Your task to perform on an android device: choose inbox layout in the gmail app Image 0: 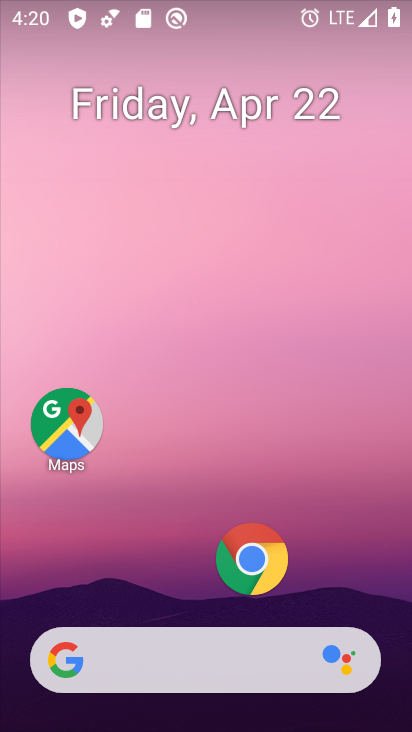
Step 0: drag from (153, 594) to (211, 120)
Your task to perform on an android device: choose inbox layout in the gmail app Image 1: 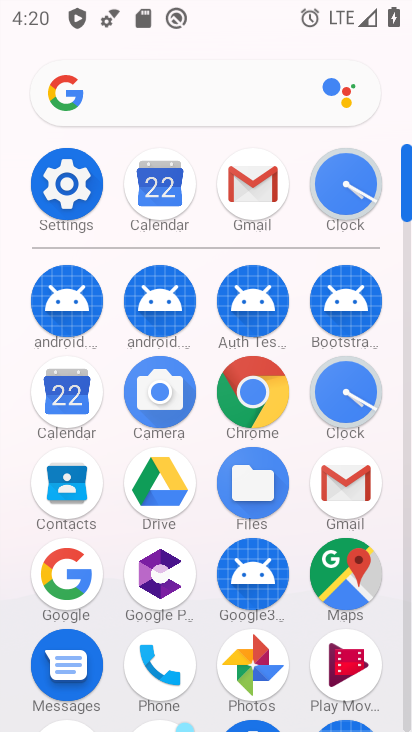
Step 1: click (346, 491)
Your task to perform on an android device: choose inbox layout in the gmail app Image 2: 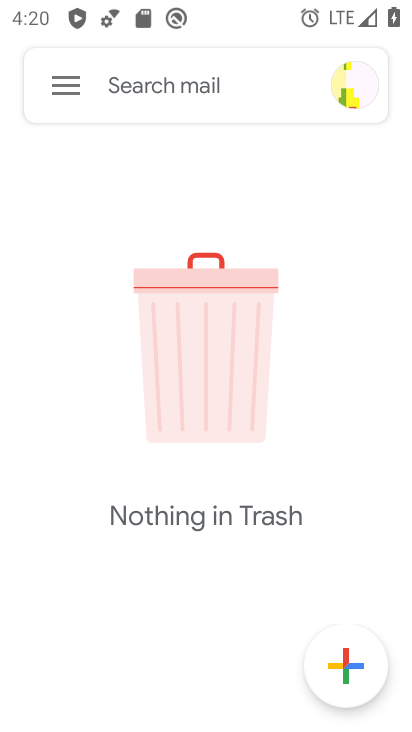
Step 2: click (64, 86)
Your task to perform on an android device: choose inbox layout in the gmail app Image 3: 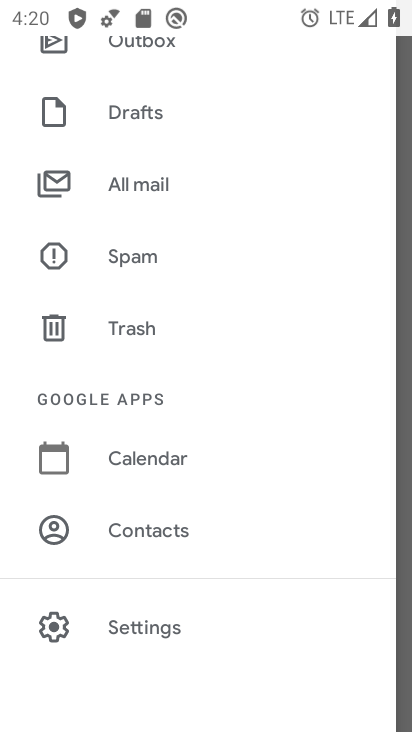
Step 3: click (122, 630)
Your task to perform on an android device: choose inbox layout in the gmail app Image 4: 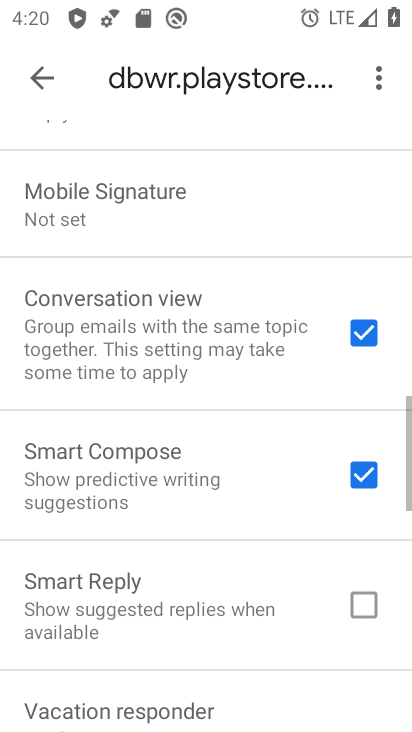
Step 4: drag from (138, 213) to (122, 516)
Your task to perform on an android device: choose inbox layout in the gmail app Image 5: 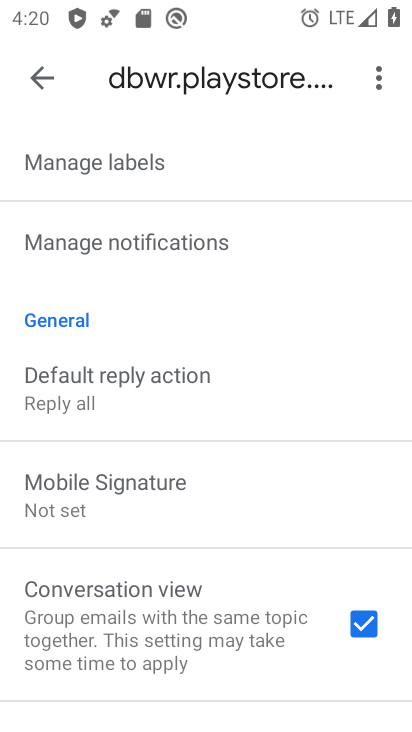
Step 5: drag from (156, 270) to (121, 619)
Your task to perform on an android device: choose inbox layout in the gmail app Image 6: 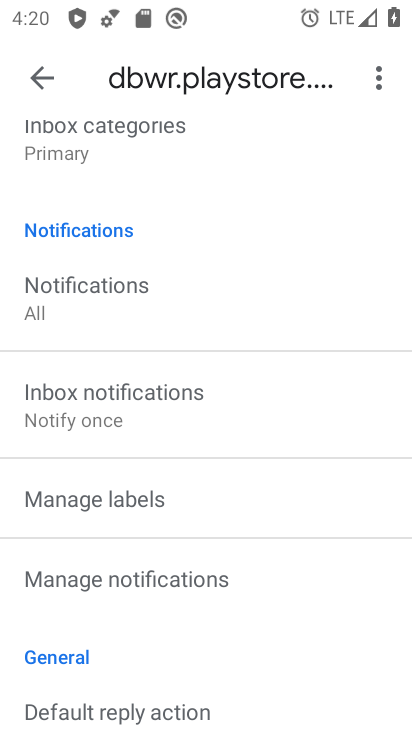
Step 6: drag from (185, 284) to (176, 602)
Your task to perform on an android device: choose inbox layout in the gmail app Image 7: 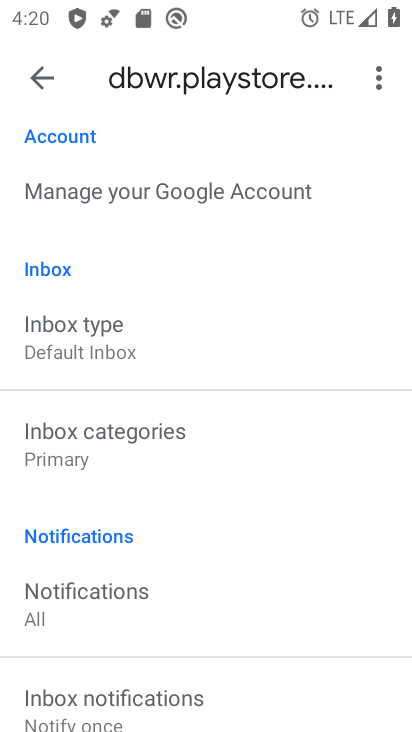
Step 7: click (95, 327)
Your task to perform on an android device: choose inbox layout in the gmail app Image 8: 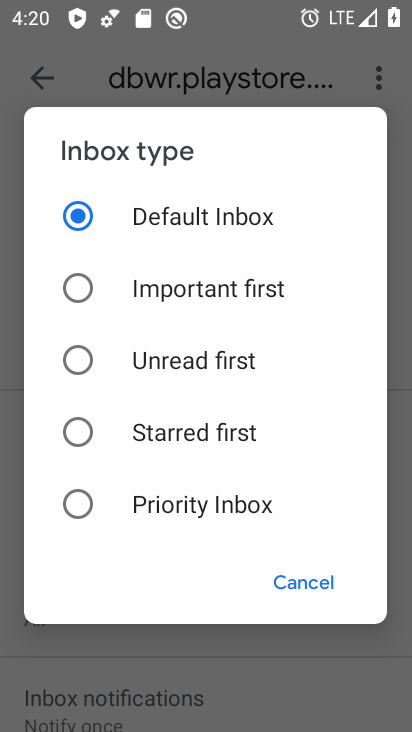
Step 8: click (73, 289)
Your task to perform on an android device: choose inbox layout in the gmail app Image 9: 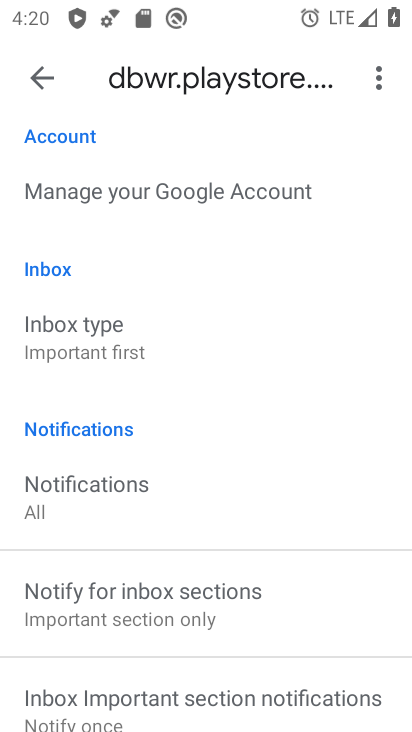
Step 9: task complete